Your task to perform on an android device: Open Reddit.com Image 0: 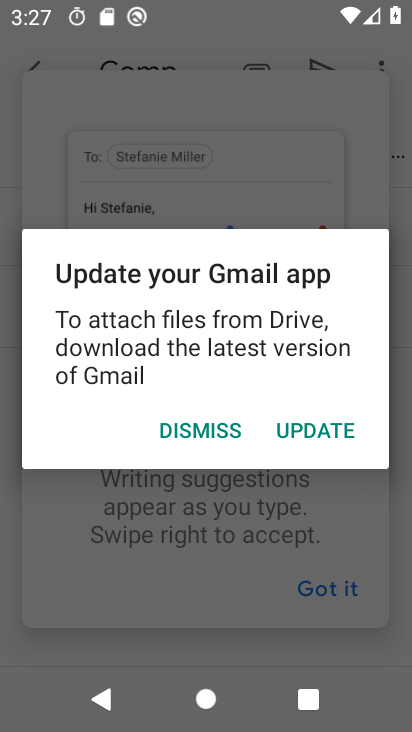
Step 0: press home button
Your task to perform on an android device: Open Reddit.com Image 1: 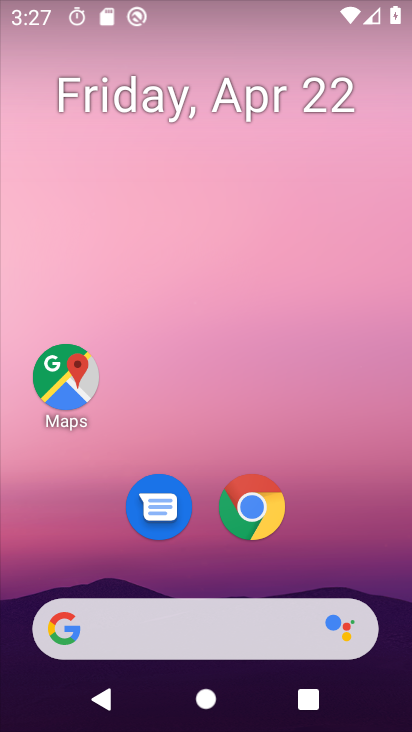
Step 1: drag from (331, 501) to (260, 110)
Your task to perform on an android device: Open Reddit.com Image 2: 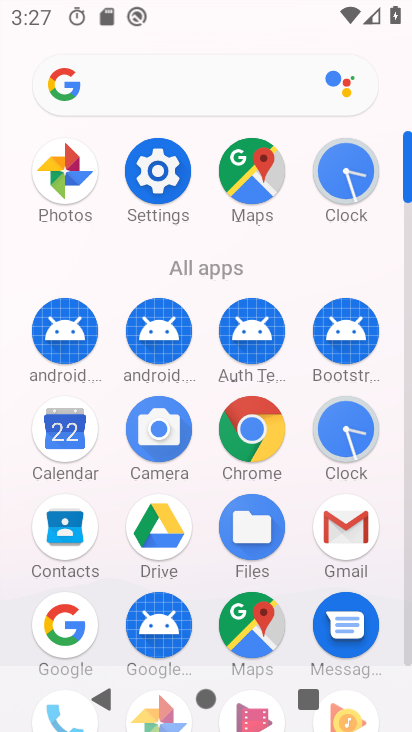
Step 2: click (254, 423)
Your task to perform on an android device: Open Reddit.com Image 3: 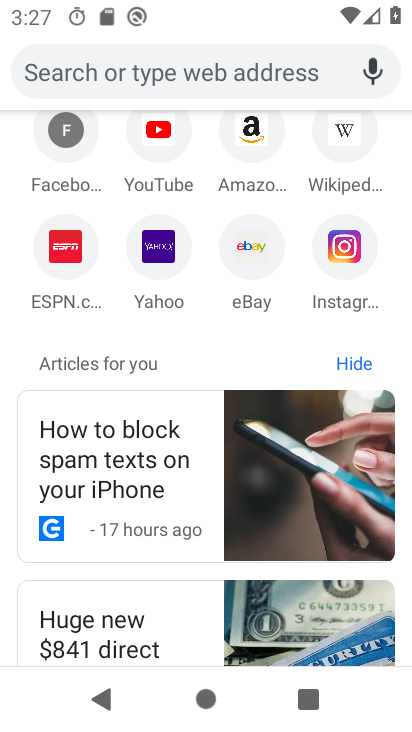
Step 3: drag from (395, 267) to (385, 506)
Your task to perform on an android device: Open Reddit.com Image 4: 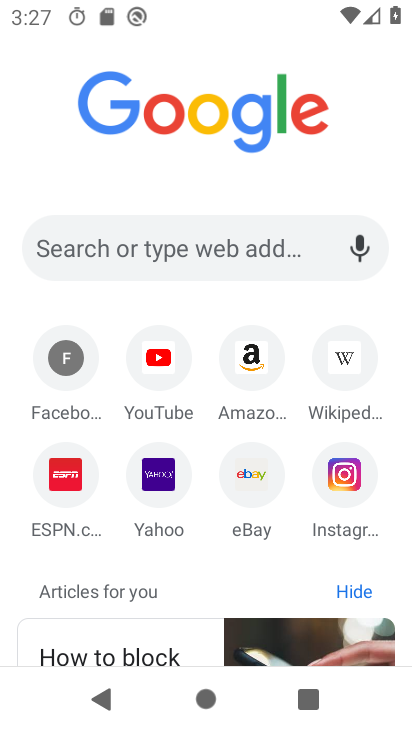
Step 4: click (204, 252)
Your task to perform on an android device: Open Reddit.com Image 5: 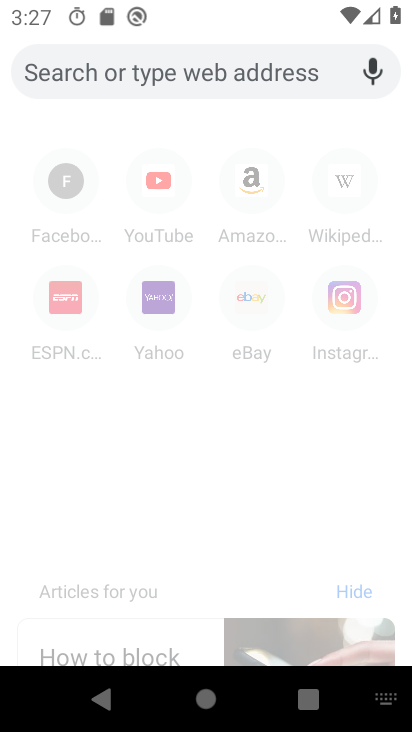
Step 5: type "reddit.com"
Your task to perform on an android device: Open Reddit.com Image 6: 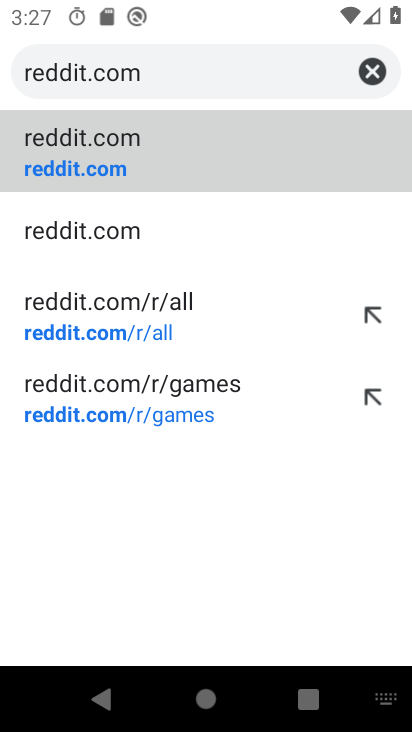
Step 6: click (78, 159)
Your task to perform on an android device: Open Reddit.com Image 7: 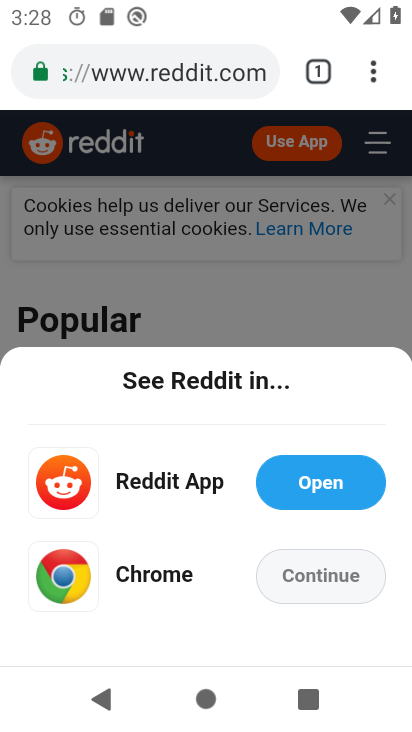
Step 7: click (325, 486)
Your task to perform on an android device: Open Reddit.com Image 8: 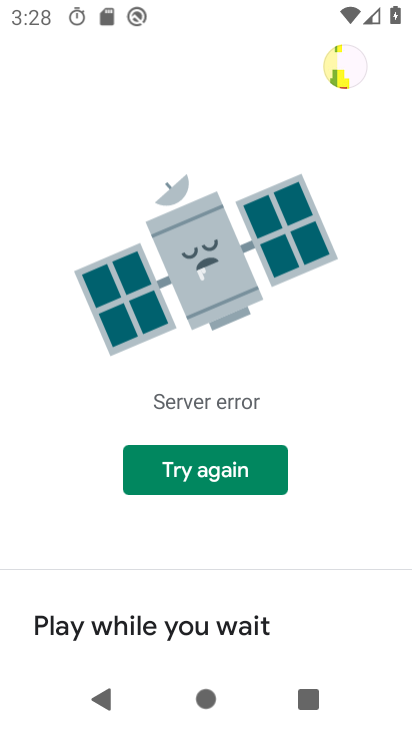
Step 8: task complete